Your task to perform on an android device: Go to ESPN.com Image 0: 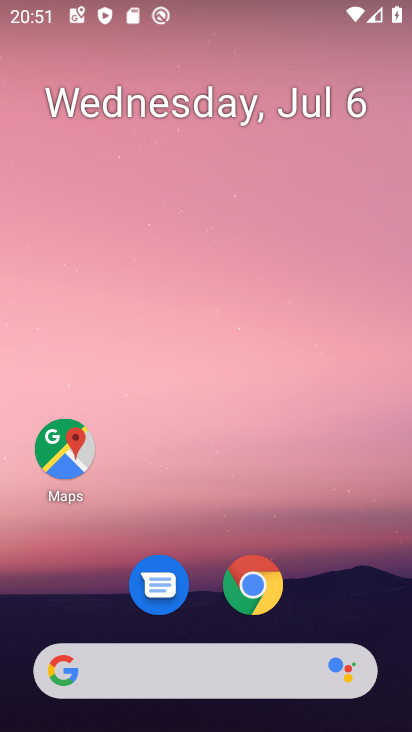
Step 0: click (258, 589)
Your task to perform on an android device: Go to ESPN.com Image 1: 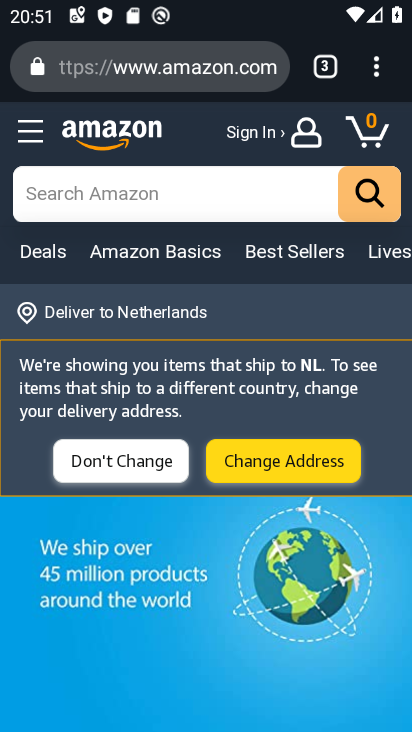
Step 1: click (271, 62)
Your task to perform on an android device: Go to ESPN.com Image 2: 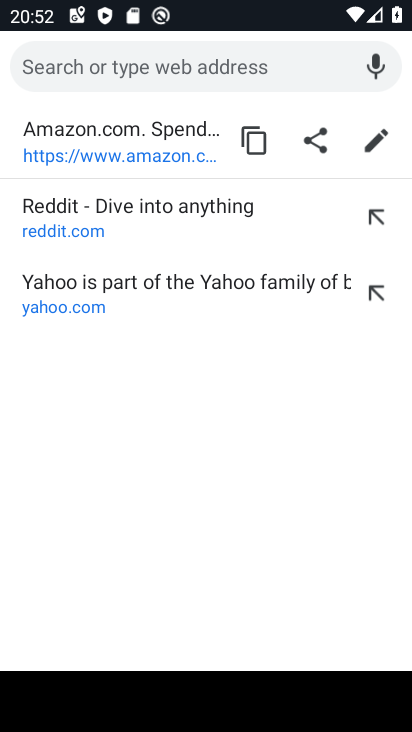
Step 2: type "espn.com"
Your task to perform on an android device: Go to ESPN.com Image 3: 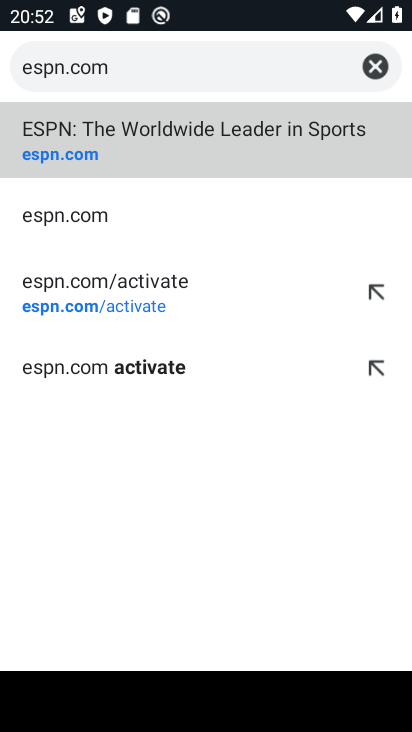
Step 3: click (201, 129)
Your task to perform on an android device: Go to ESPN.com Image 4: 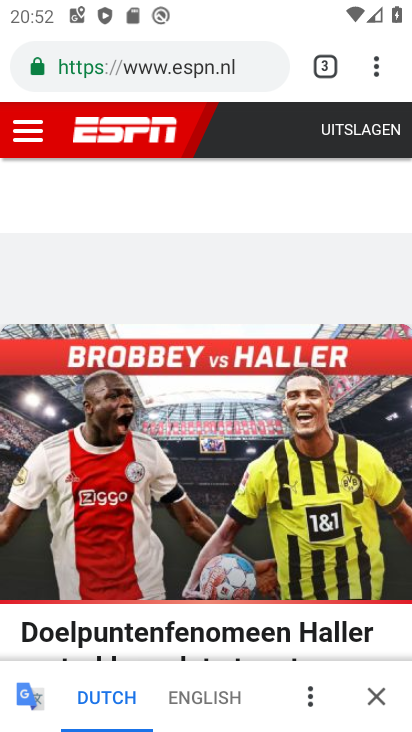
Step 4: task complete